Your task to perform on an android device: Open calendar and show me the second week of next month Image 0: 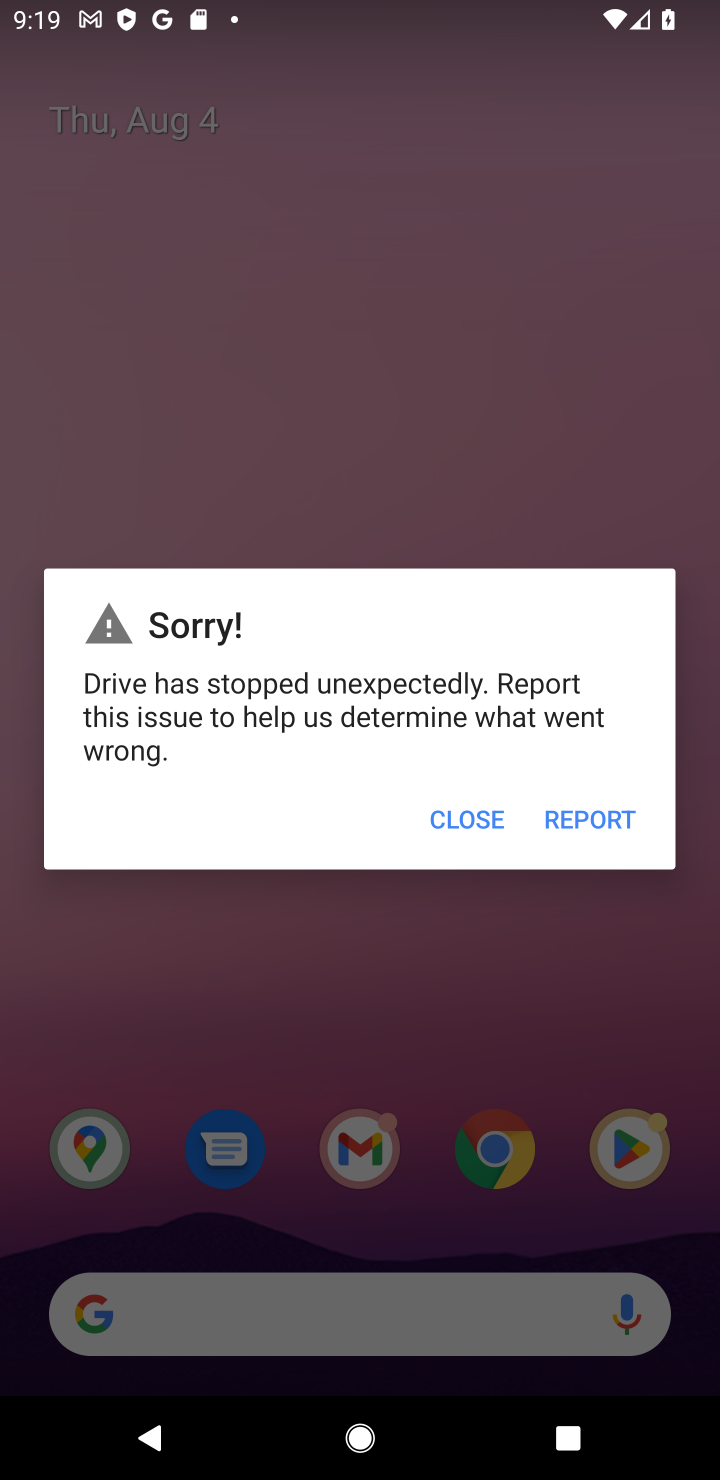
Step 0: press home button
Your task to perform on an android device: Open calendar and show me the second week of next month Image 1: 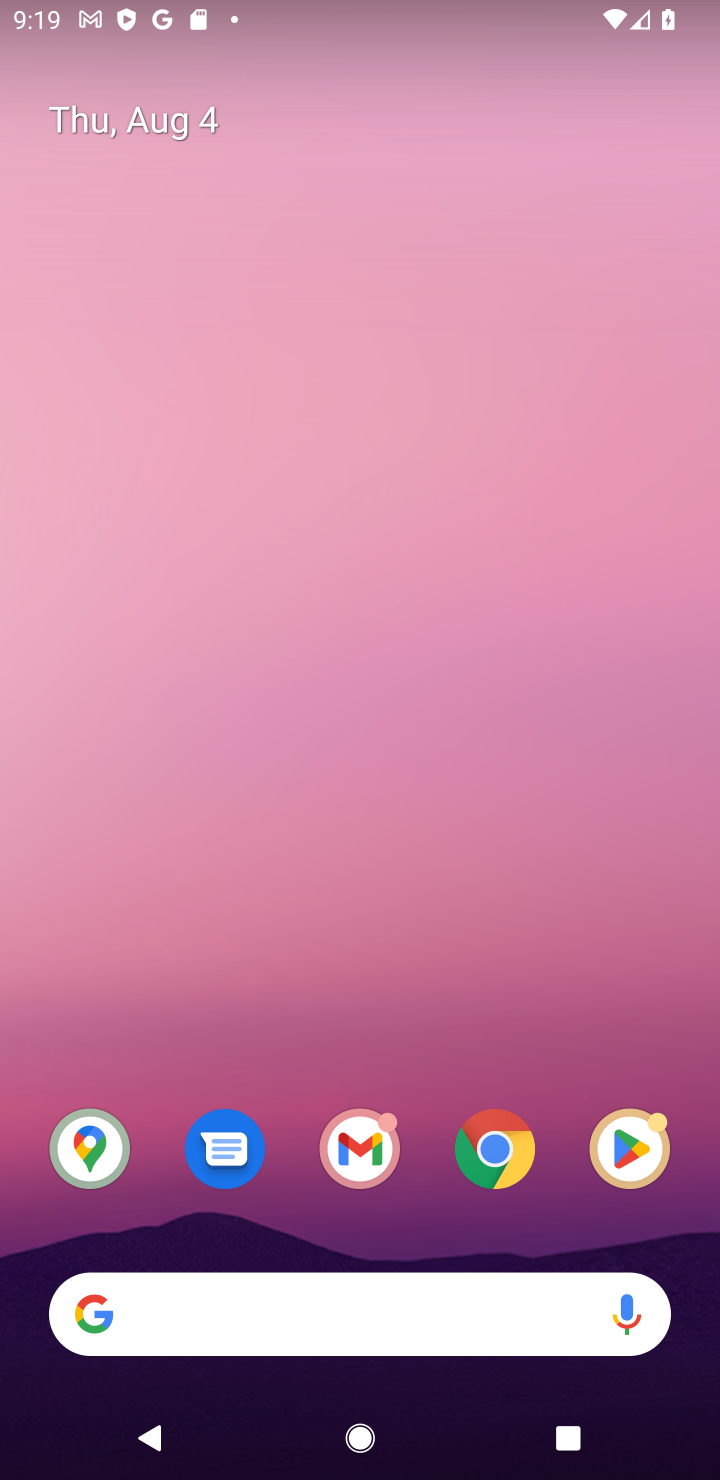
Step 1: drag from (598, 1225) to (574, 292)
Your task to perform on an android device: Open calendar and show me the second week of next month Image 2: 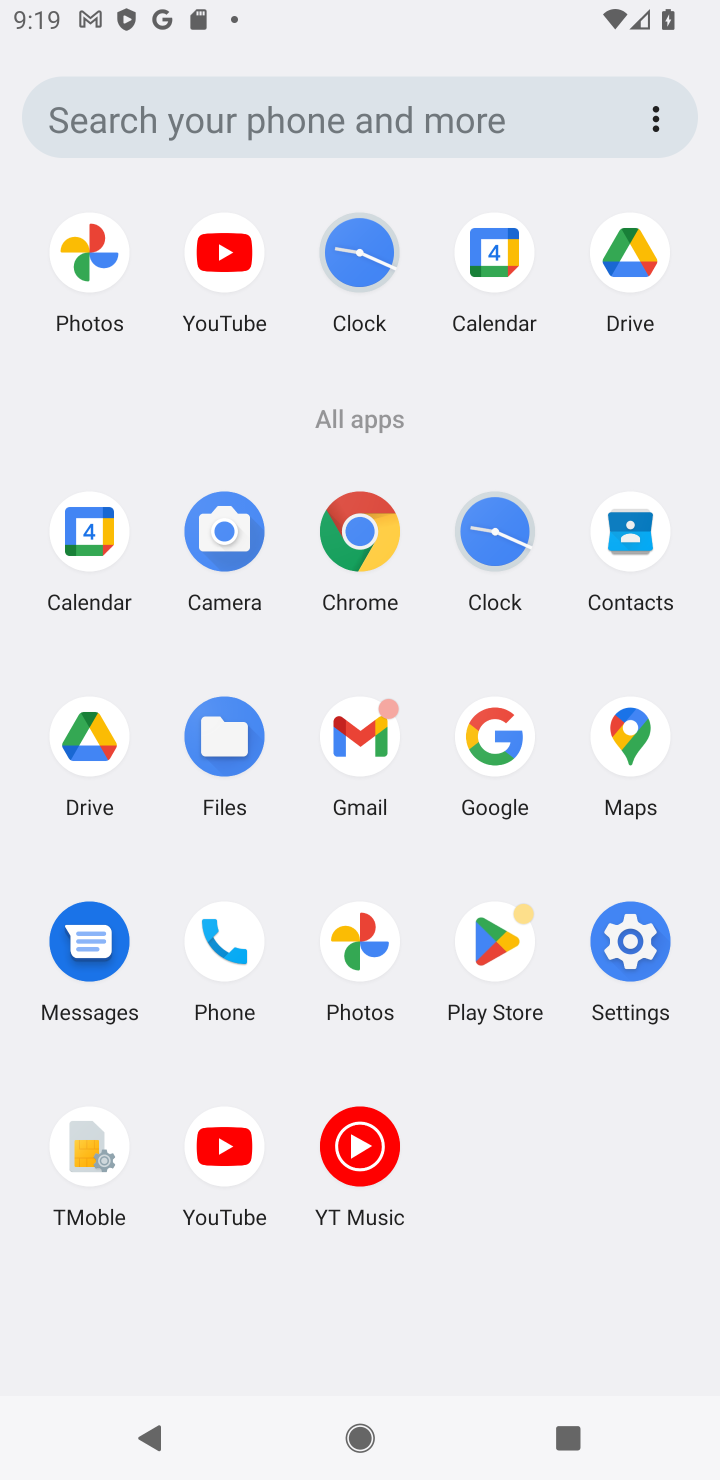
Step 2: click (86, 537)
Your task to perform on an android device: Open calendar and show me the second week of next month Image 3: 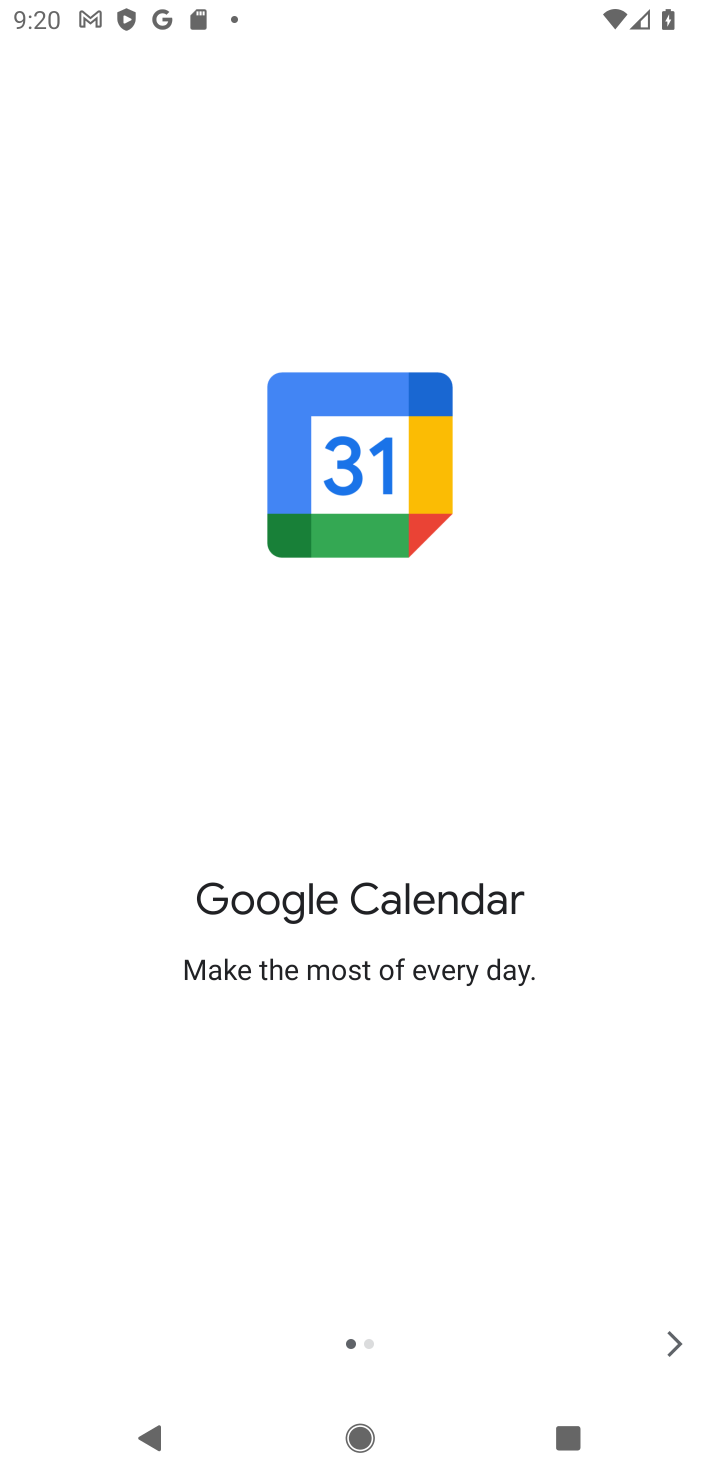
Step 3: click (667, 1343)
Your task to perform on an android device: Open calendar and show me the second week of next month Image 4: 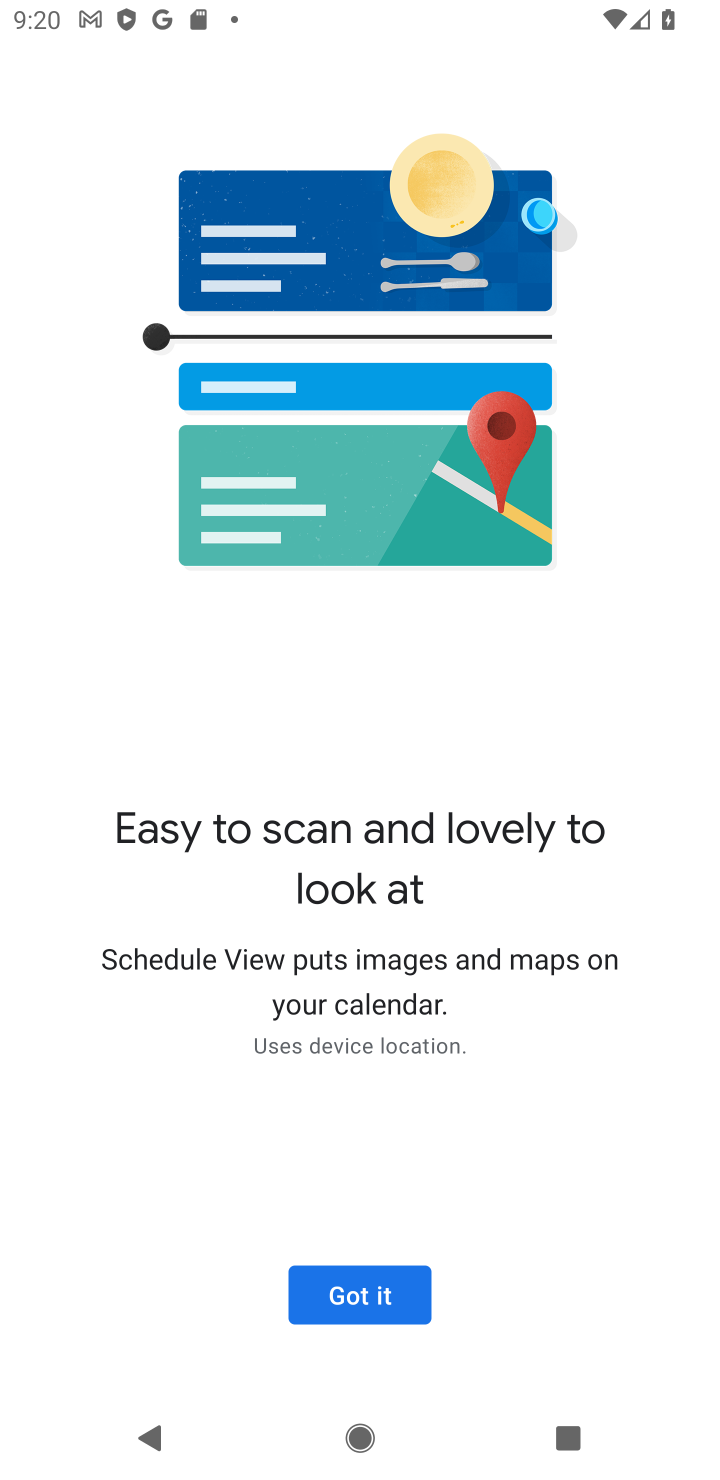
Step 4: click (359, 1291)
Your task to perform on an android device: Open calendar and show me the second week of next month Image 5: 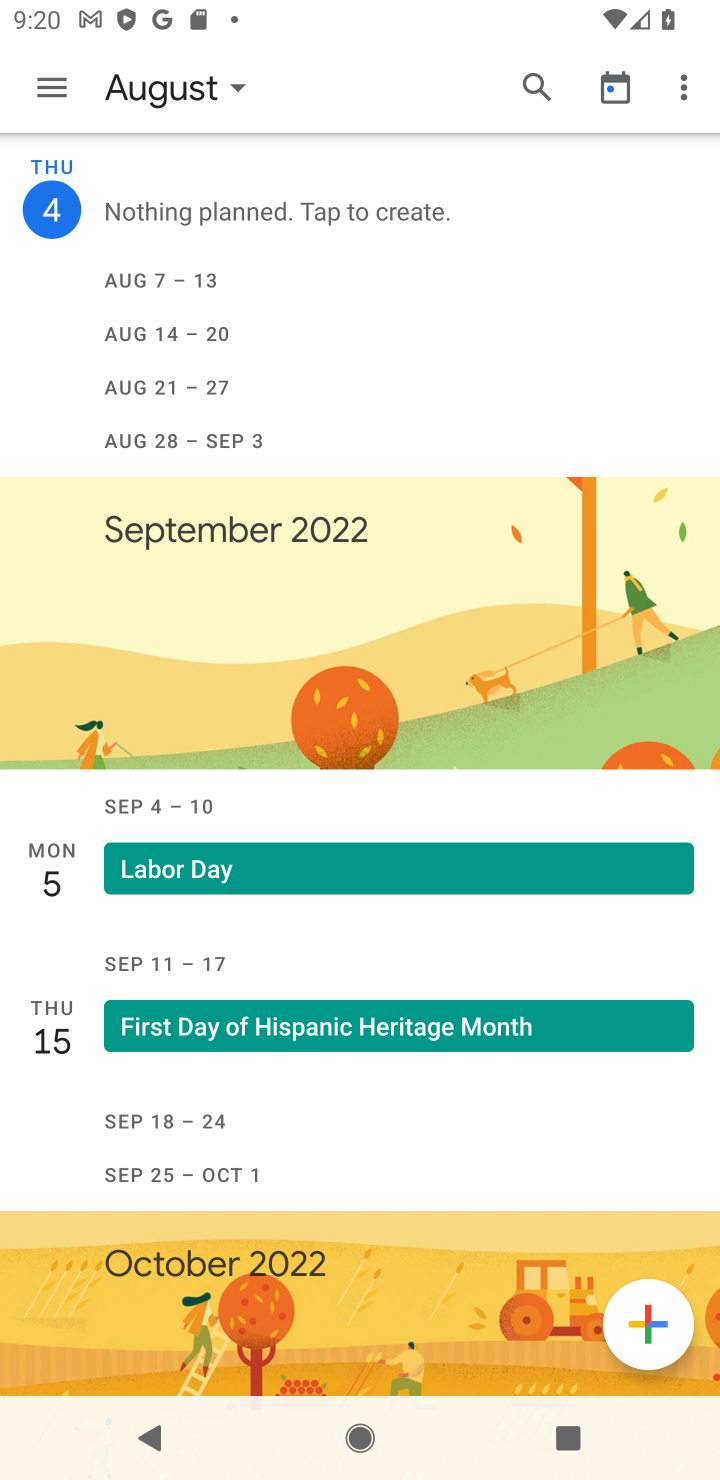
Step 5: click (47, 76)
Your task to perform on an android device: Open calendar and show me the second week of next month Image 6: 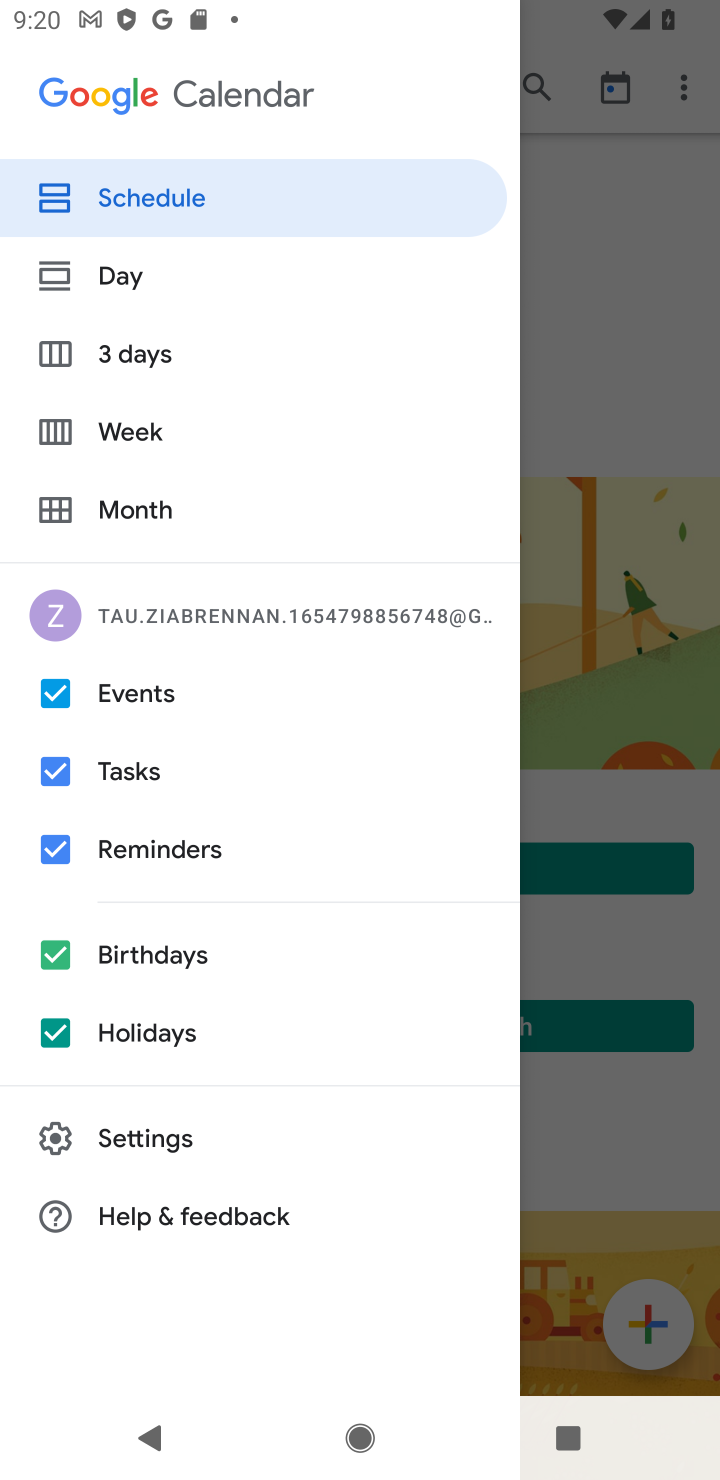
Step 6: click (141, 417)
Your task to perform on an android device: Open calendar and show me the second week of next month Image 7: 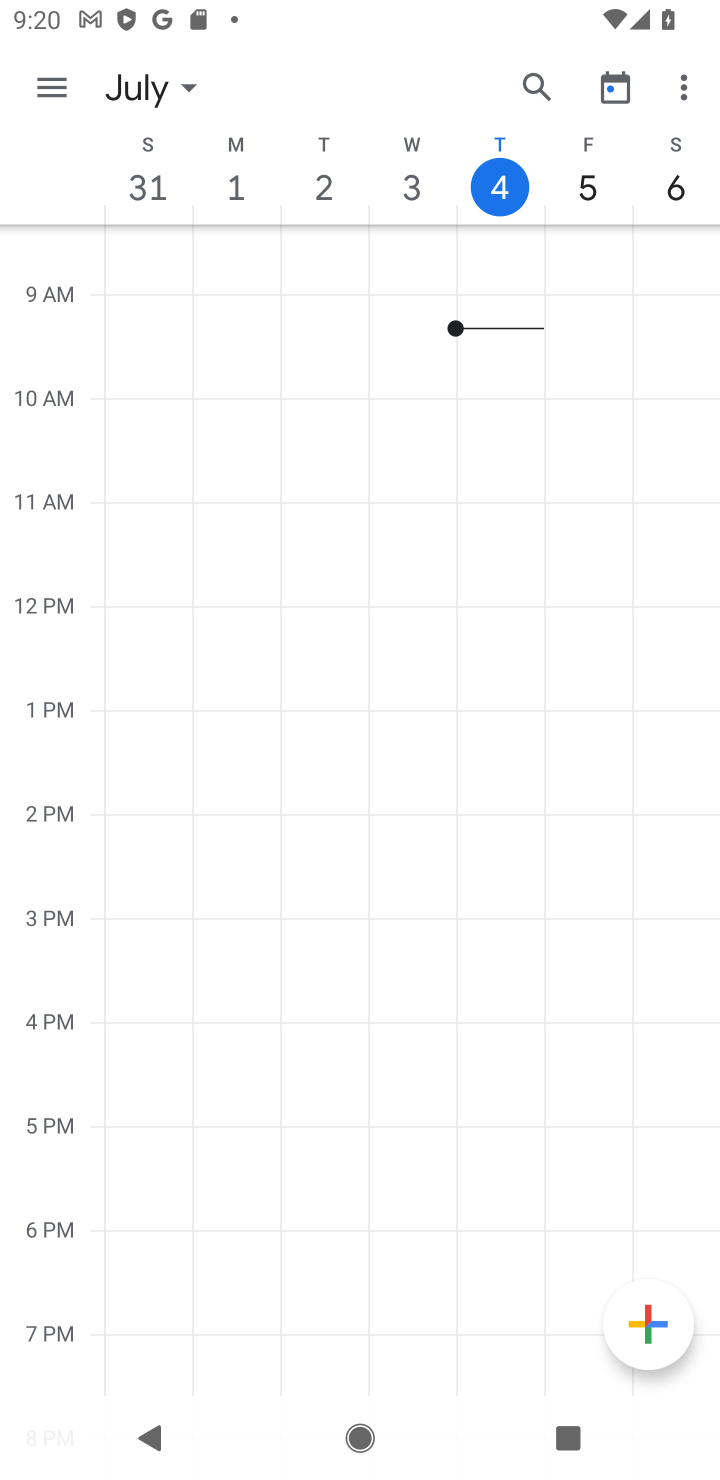
Step 7: click (182, 78)
Your task to perform on an android device: Open calendar and show me the second week of next month Image 8: 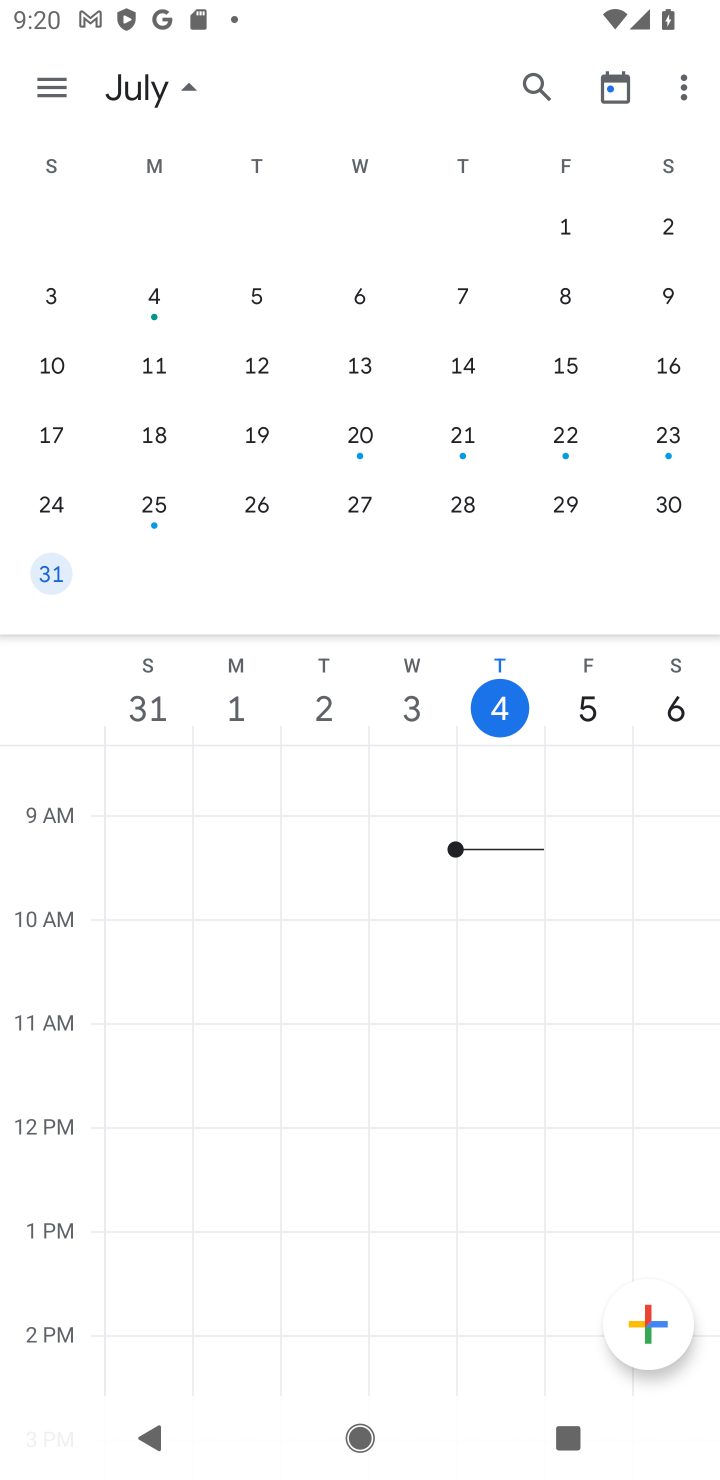
Step 8: drag from (642, 419) to (136, 430)
Your task to perform on an android device: Open calendar and show me the second week of next month Image 9: 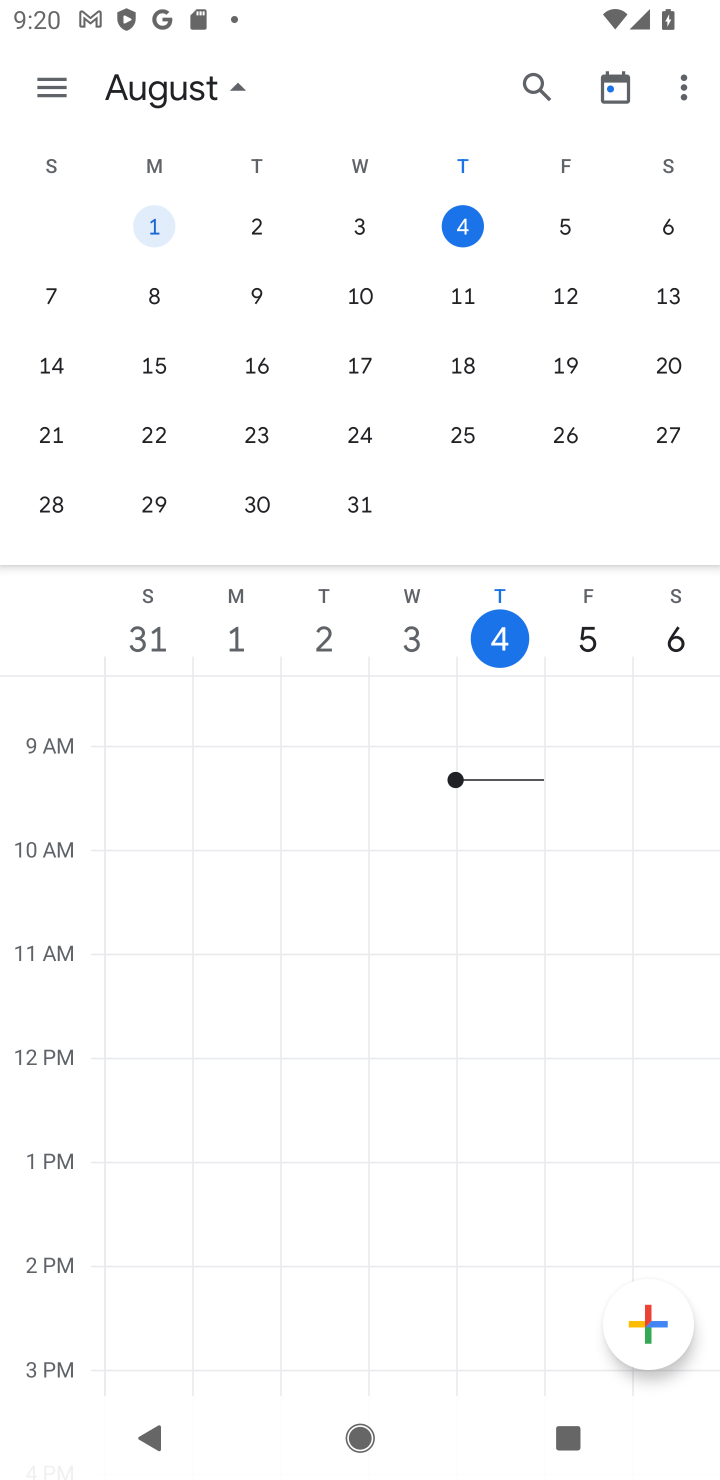
Step 9: drag from (663, 419) to (0, 366)
Your task to perform on an android device: Open calendar and show me the second week of next month Image 10: 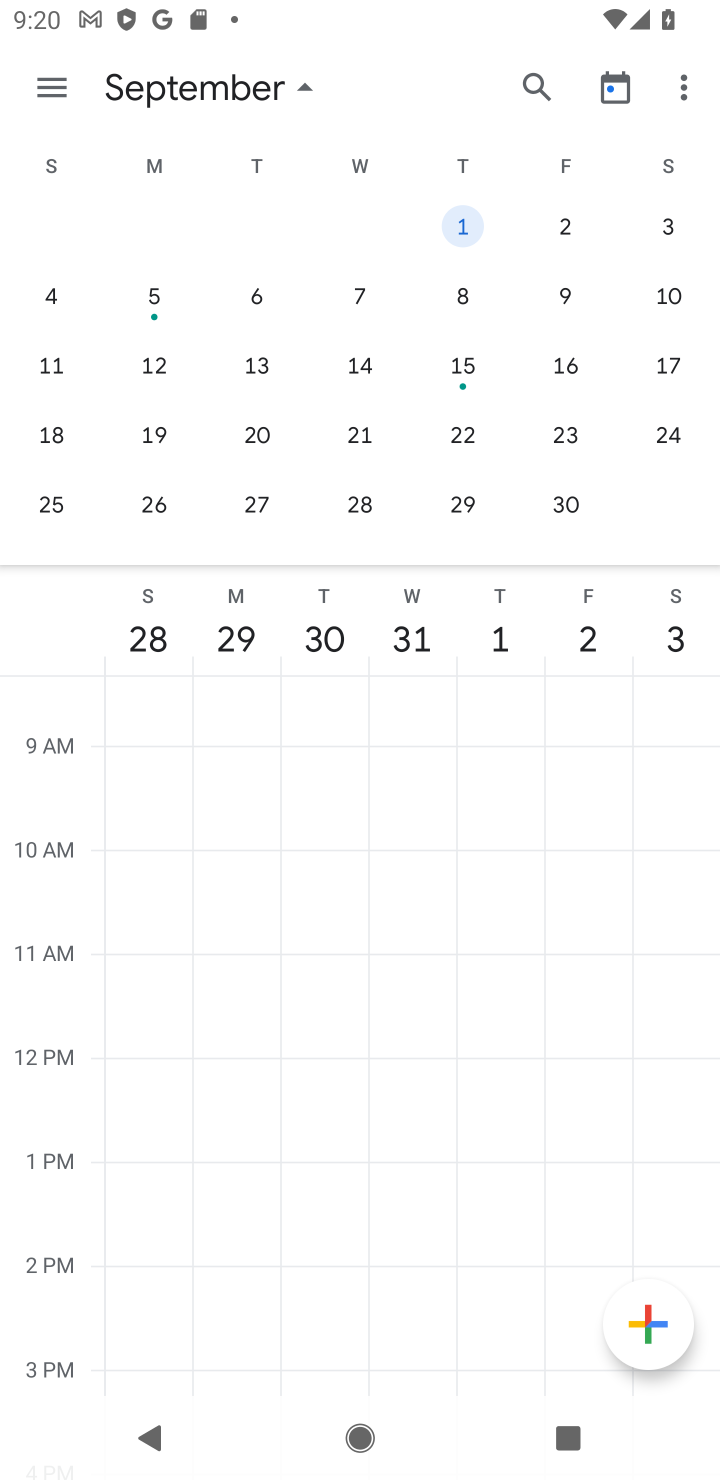
Step 10: click (52, 364)
Your task to perform on an android device: Open calendar and show me the second week of next month Image 11: 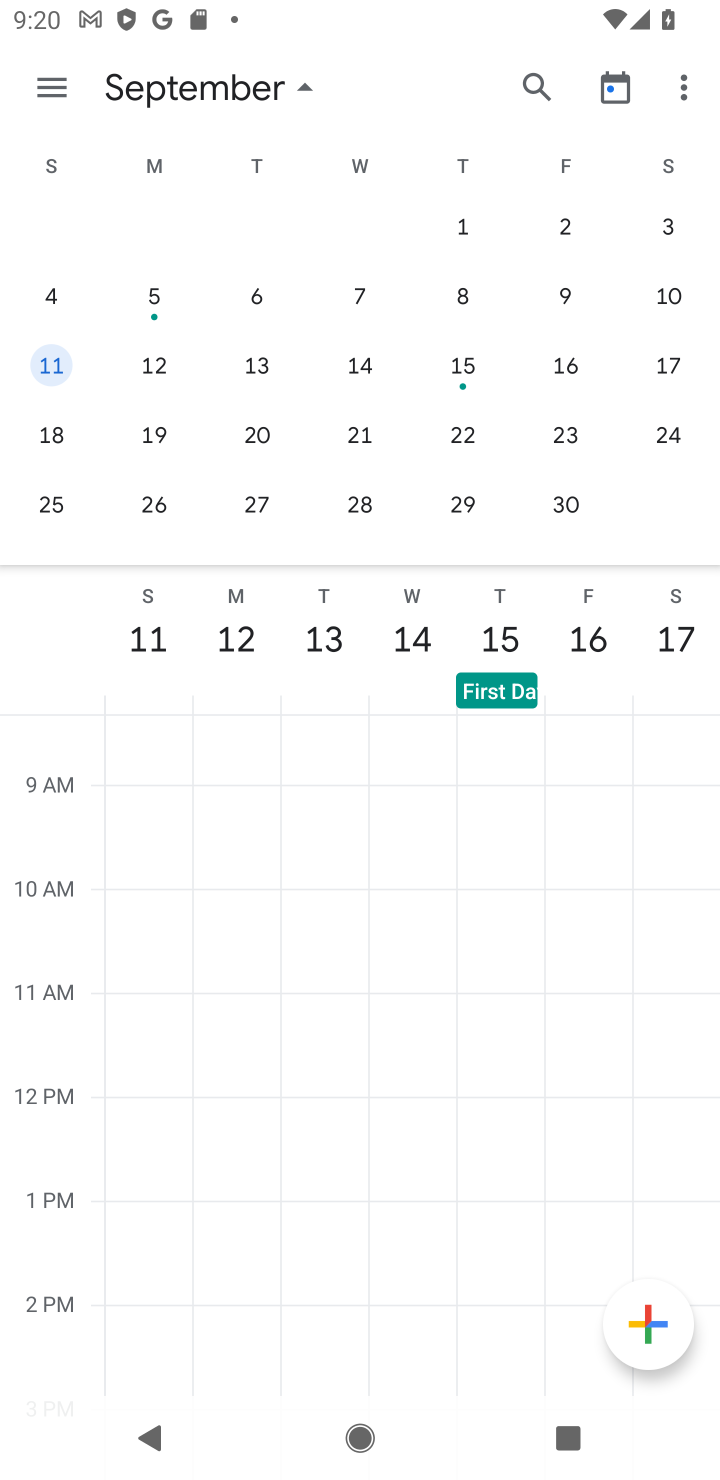
Step 11: drag from (465, 850) to (439, 1185)
Your task to perform on an android device: Open calendar and show me the second week of next month Image 12: 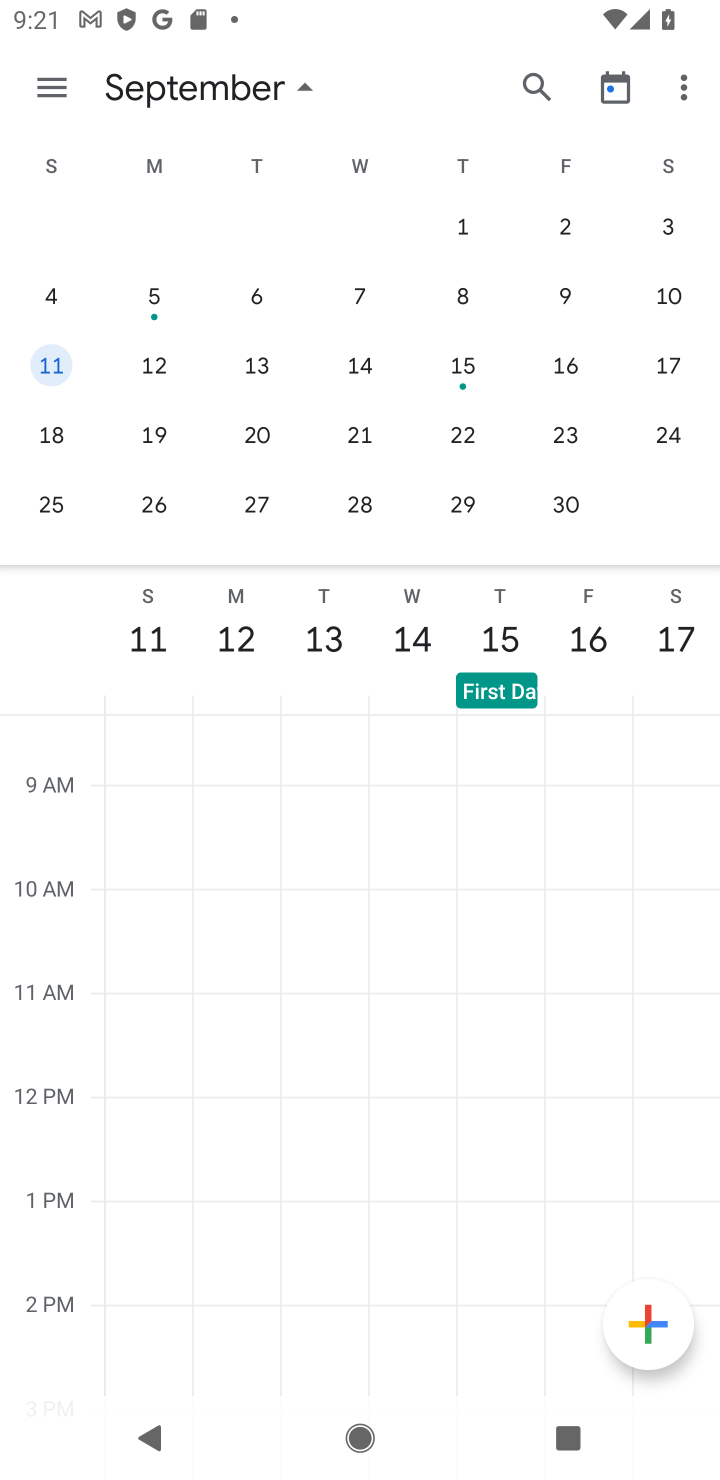
Step 12: drag from (439, 1185) to (354, 381)
Your task to perform on an android device: Open calendar and show me the second week of next month Image 13: 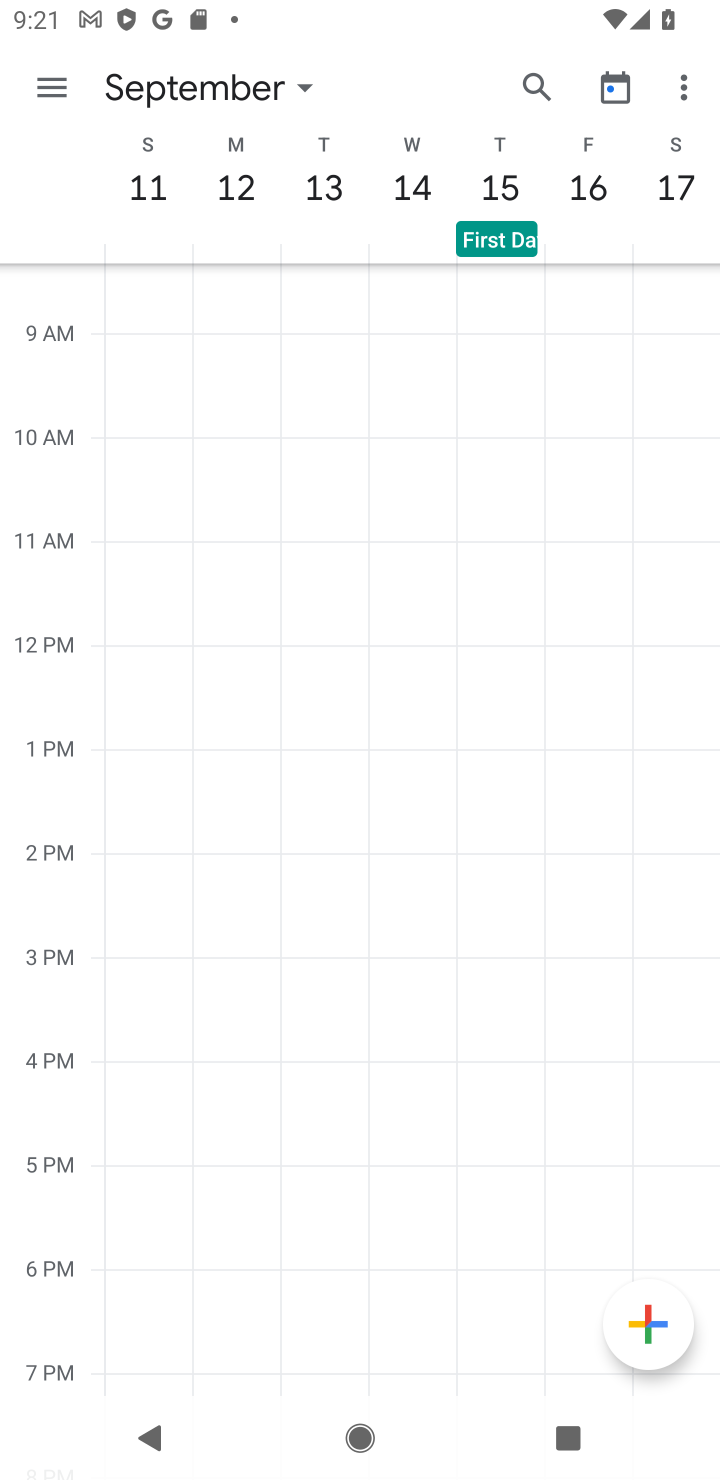
Step 13: drag from (296, 1308) to (313, 588)
Your task to perform on an android device: Open calendar and show me the second week of next month Image 14: 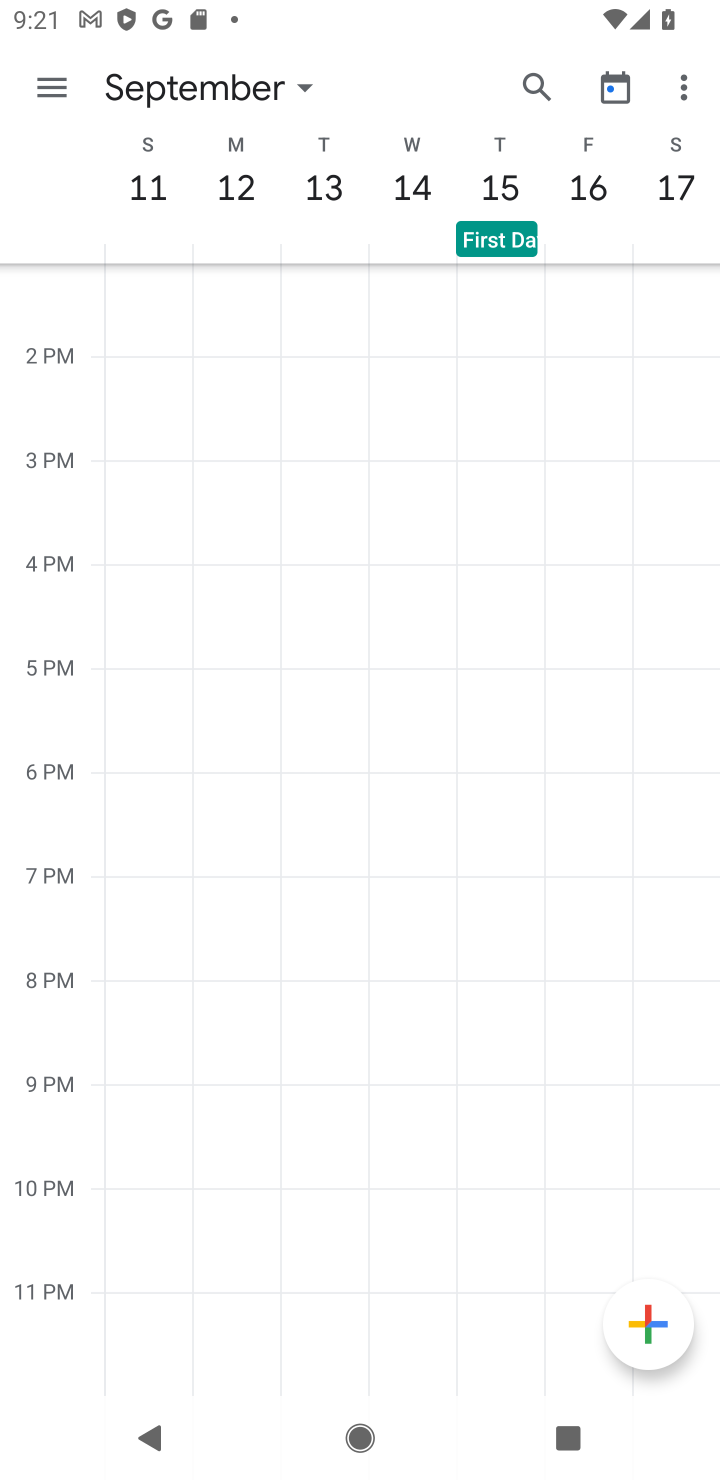
Step 14: drag from (313, 599) to (316, 1008)
Your task to perform on an android device: Open calendar and show me the second week of next month Image 15: 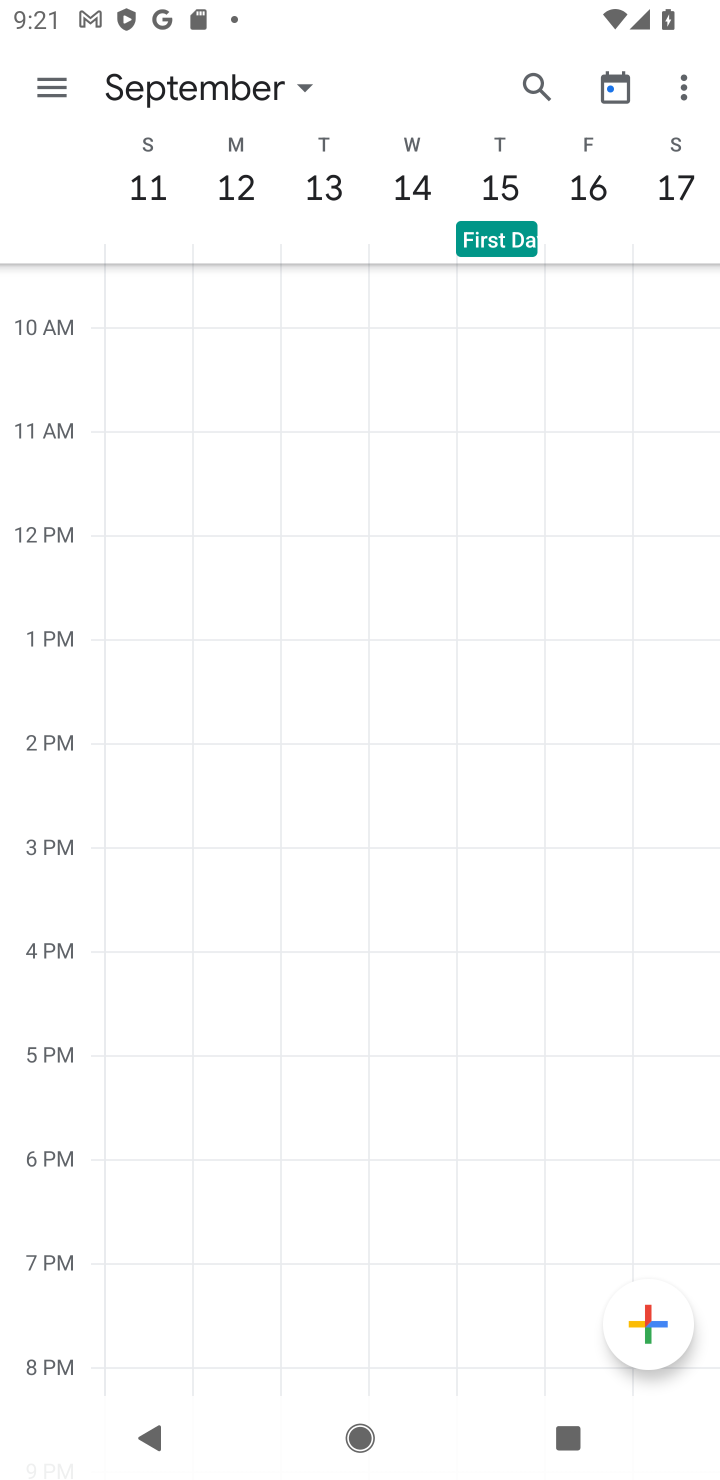
Step 15: drag from (340, 447) to (387, 990)
Your task to perform on an android device: Open calendar and show me the second week of next month Image 16: 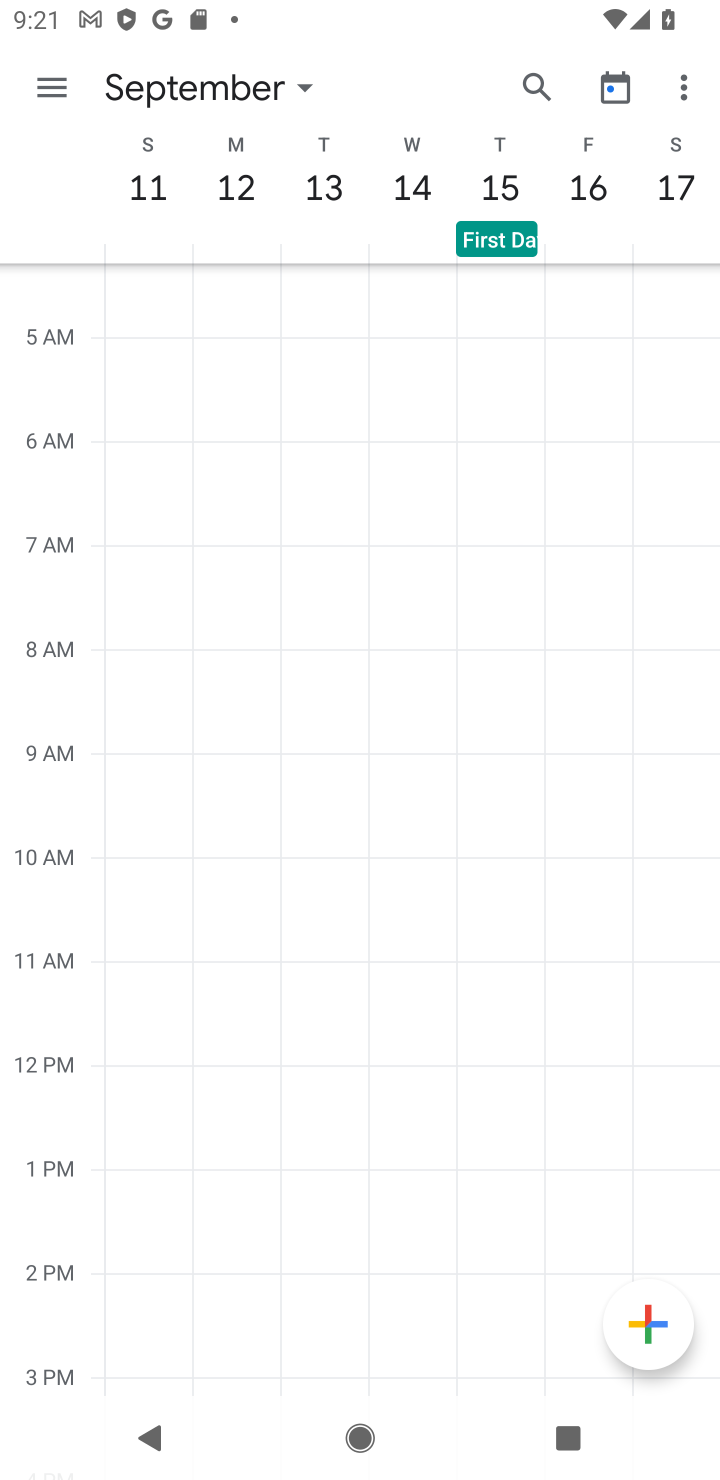
Step 16: drag from (351, 334) to (438, 1015)
Your task to perform on an android device: Open calendar and show me the second week of next month Image 17: 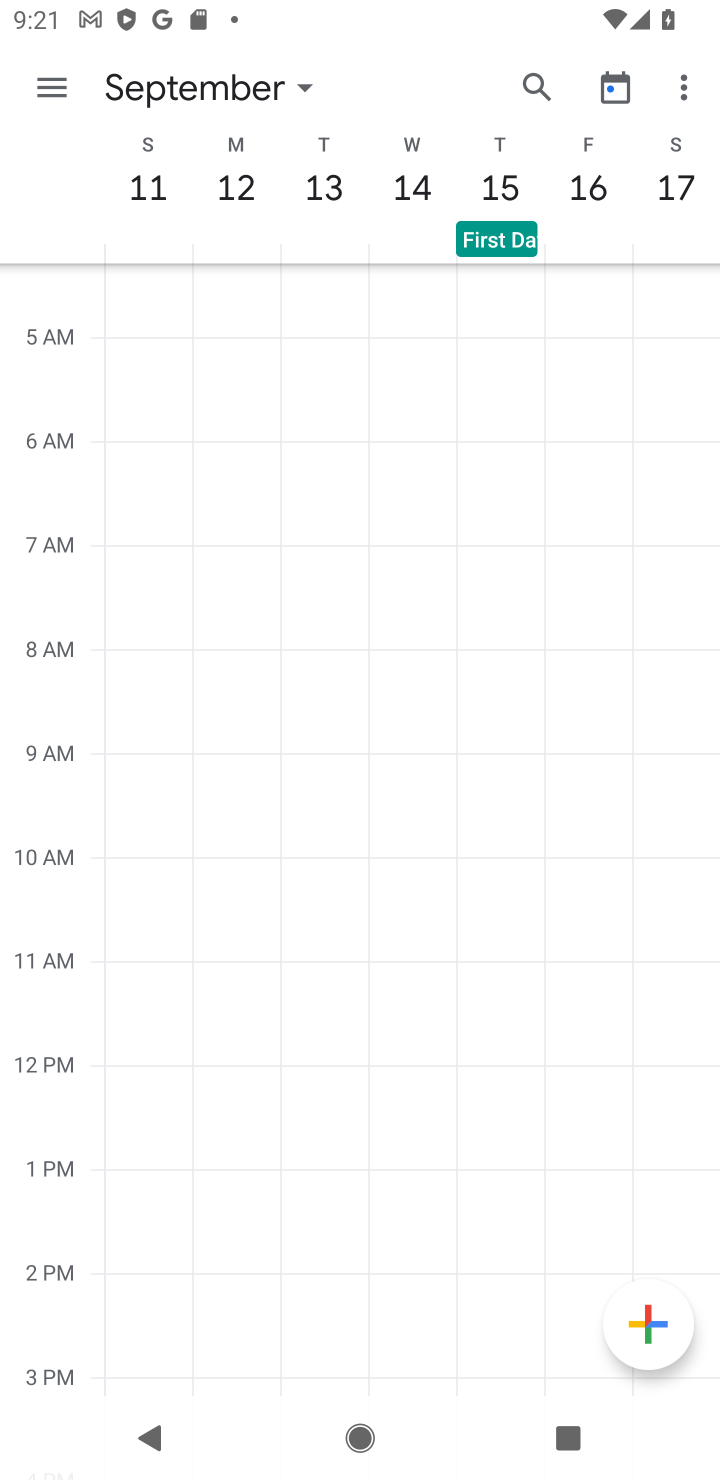
Step 17: drag from (425, 438) to (397, 920)
Your task to perform on an android device: Open calendar and show me the second week of next month Image 18: 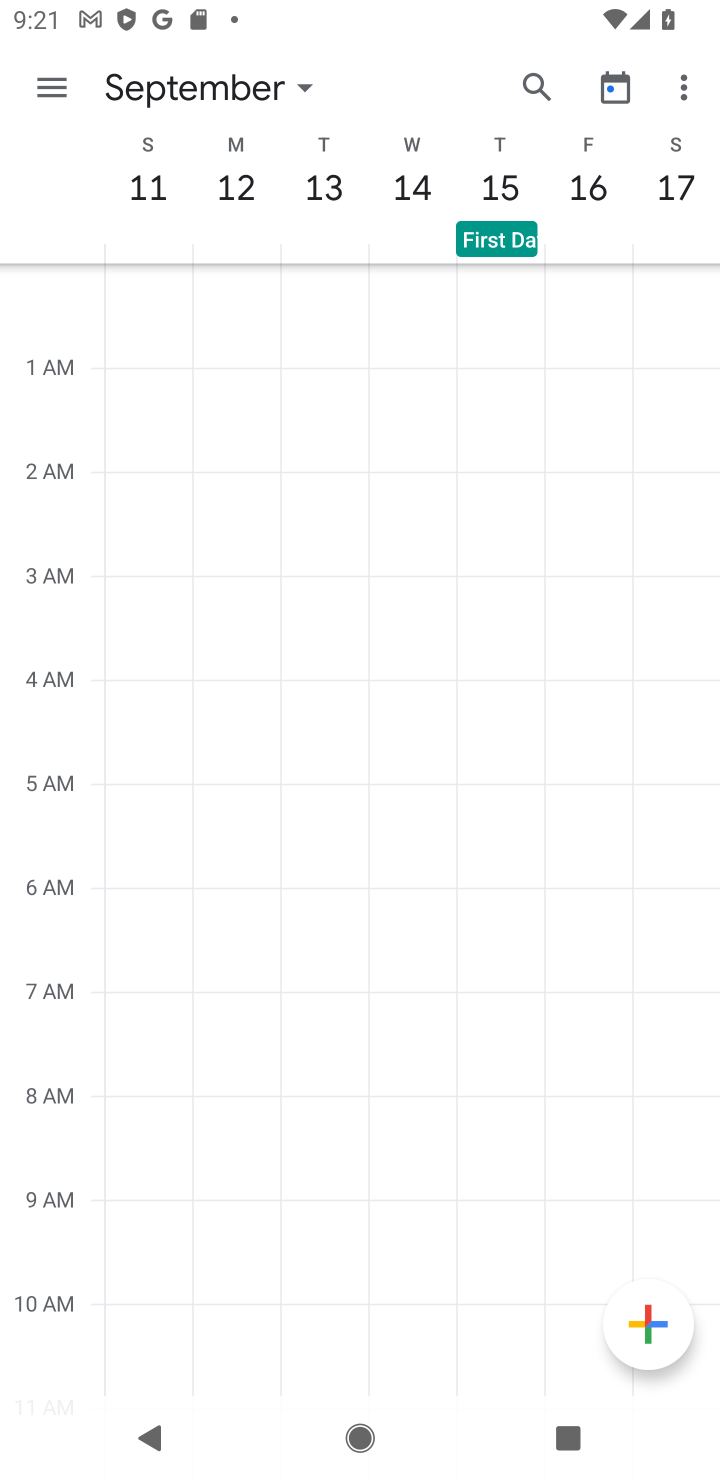
Step 18: click (291, 82)
Your task to perform on an android device: Open calendar and show me the second week of next month Image 19: 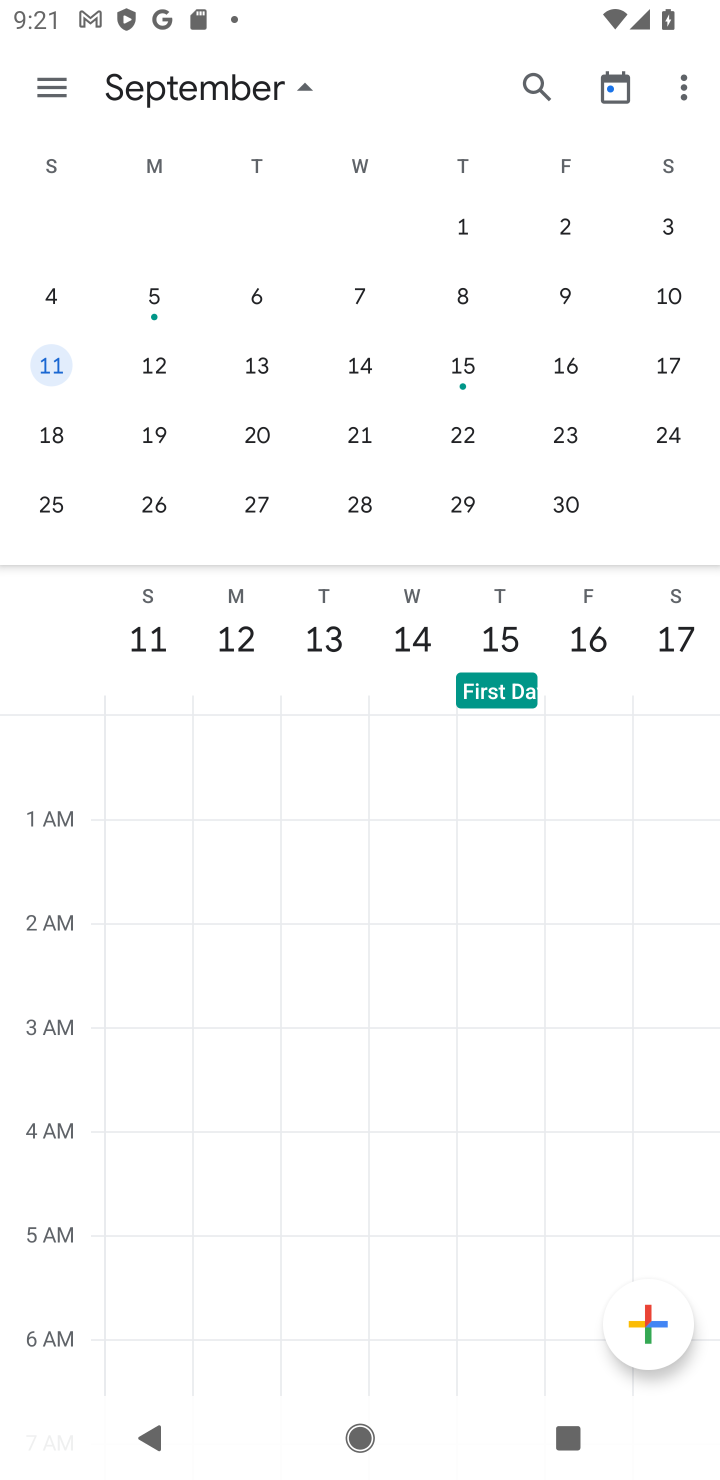
Step 19: task complete